Your task to perform on an android device: uninstall "Walmart Shopping & Grocery" Image 0: 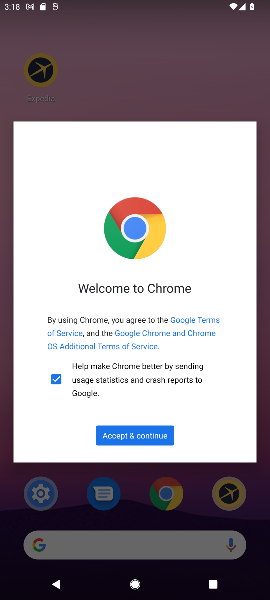
Step 0: press home button
Your task to perform on an android device: uninstall "Walmart Shopping & Grocery" Image 1: 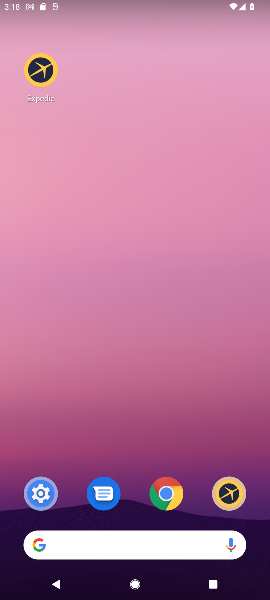
Step 1: drag from (128, 445) to (122, 133)
Your task to perform on an android device: uninstall "Walmart Shopping & Grocery" Image 2: 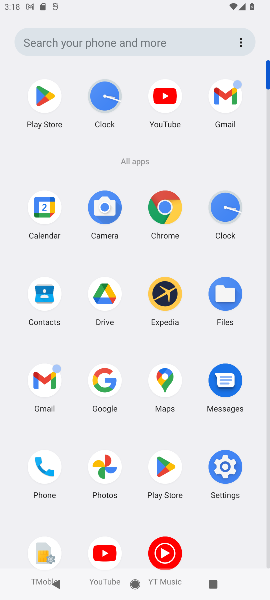
Step 2: drag from (41, 96) to (50, 485)
Your task to perform on an android device: uninstall "Walmart Shopping & Grocery" Image 3: 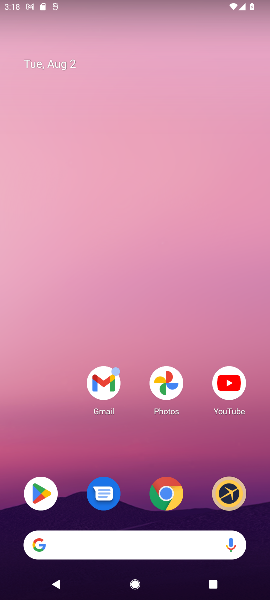
Step 3: click (42, 493)
Your task to perform on an android device: uninstall "Walmart Shopping & Grocery" Image 4: 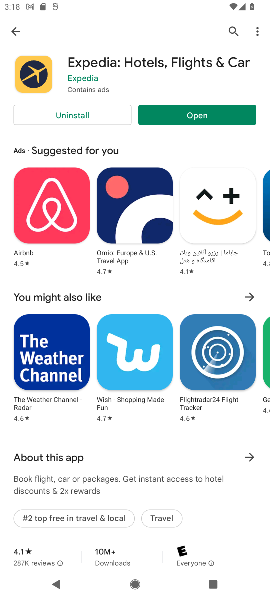
Step 4: click (17, 27)
Your task to perform on an android device: uninstall "Walmart Shopping & Grocery" Image 5: 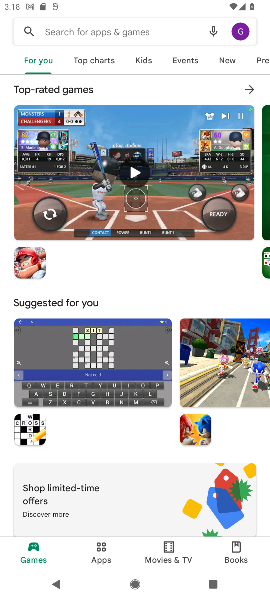
Step 5: click (120, 30)
Your task to perform on an android device: uninstall "Walmart Shopping & Grocery" Image 6: 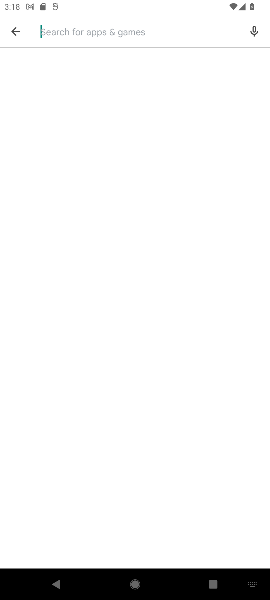
Step 6: type "Walmart Shopping & Grocery"
Your task to perform on an android device: uninstall "Walmart Shopping & Grocery" Image 7: 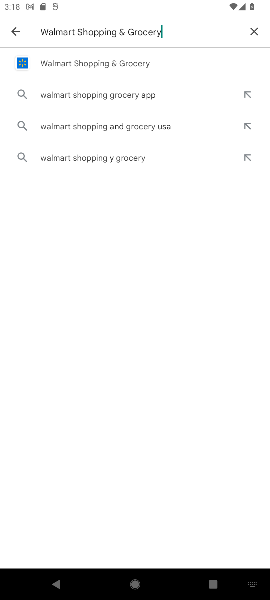
Step 7: click (83, 64)
Your task to perform on an android device: uninstall "Walmart Shopping & Grocery" Image 8: 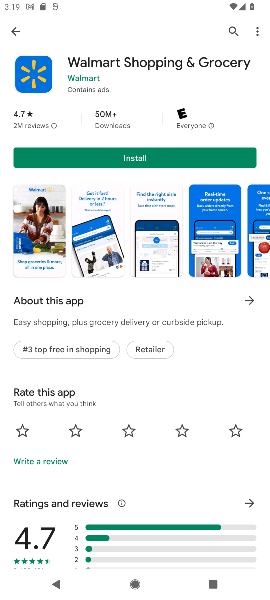
Step 8: task complete